Your task to perform on an android device: Open battery settings Image 0: 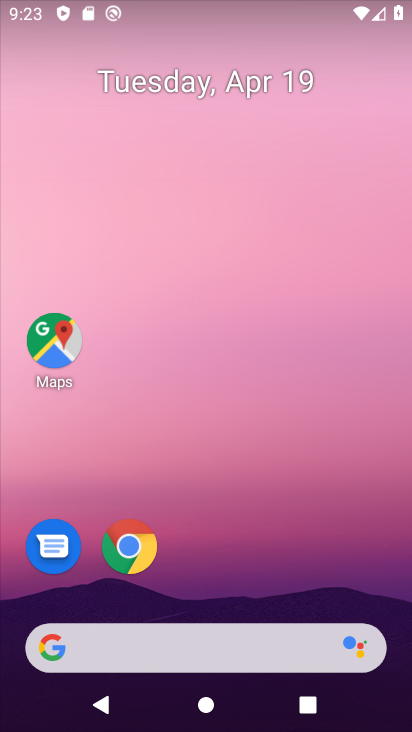
Step 0: drag from (208, 648) to (208, 5)
Your task to perform on an android device: Open battery settings Image 1: 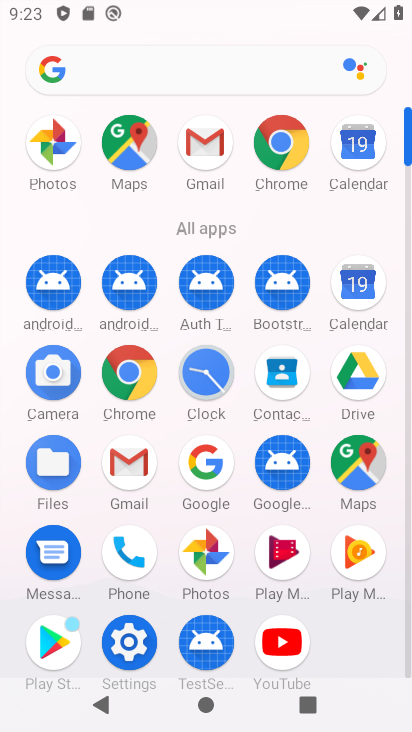
Step 1: click (130, 640)
Your task to perform on an android device: Open battery settings Image 2: 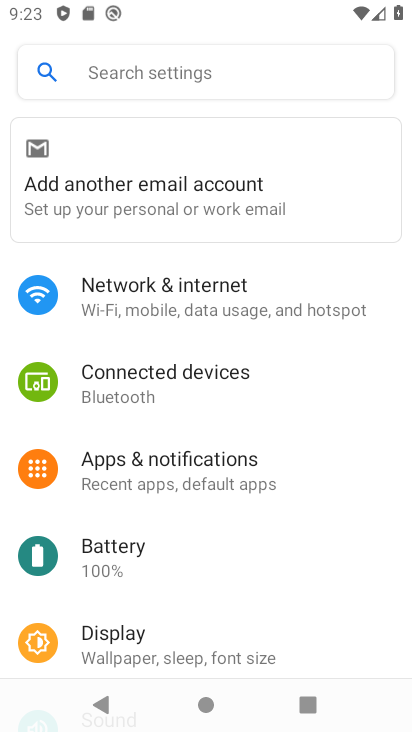
Step 2: click (102, 549)
Your task to perform on an android device: Open battery settings Image 3: 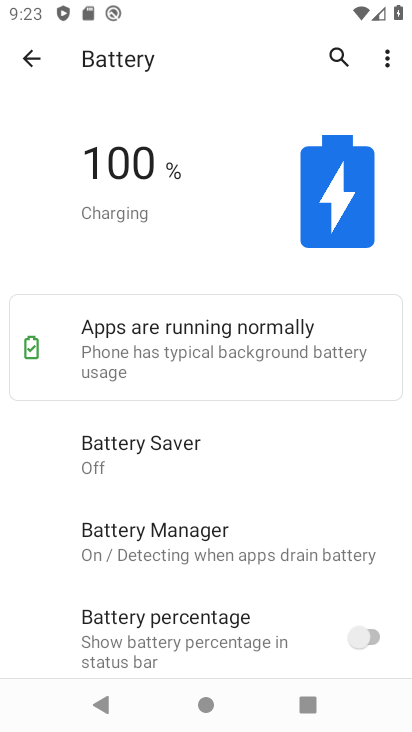
Step 3: task complete